Your task to perform on an android device: Clear the shopping cart on amazon. Image 0: 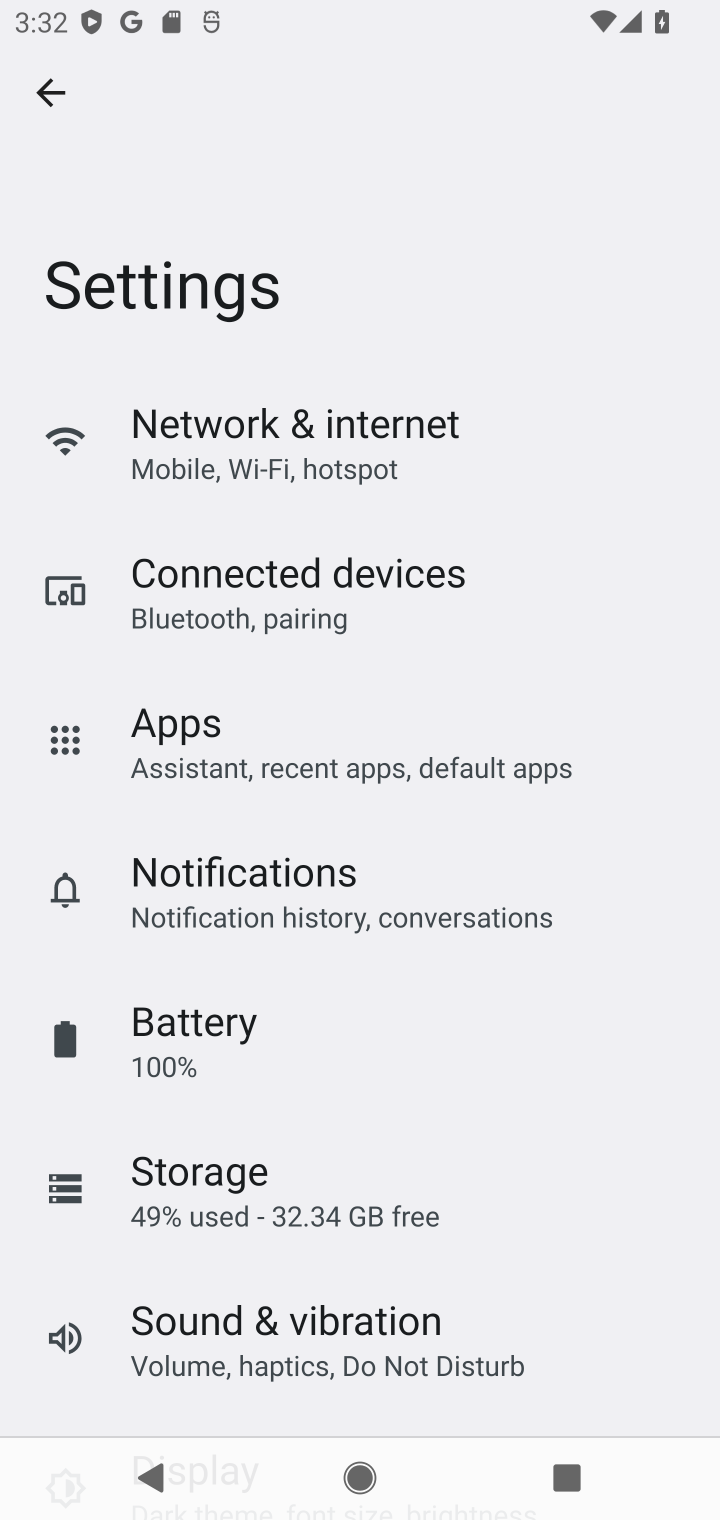
Step 0: press home button
Your task to perform on an android device: Clear the shopping cart on amazon. Image 1: 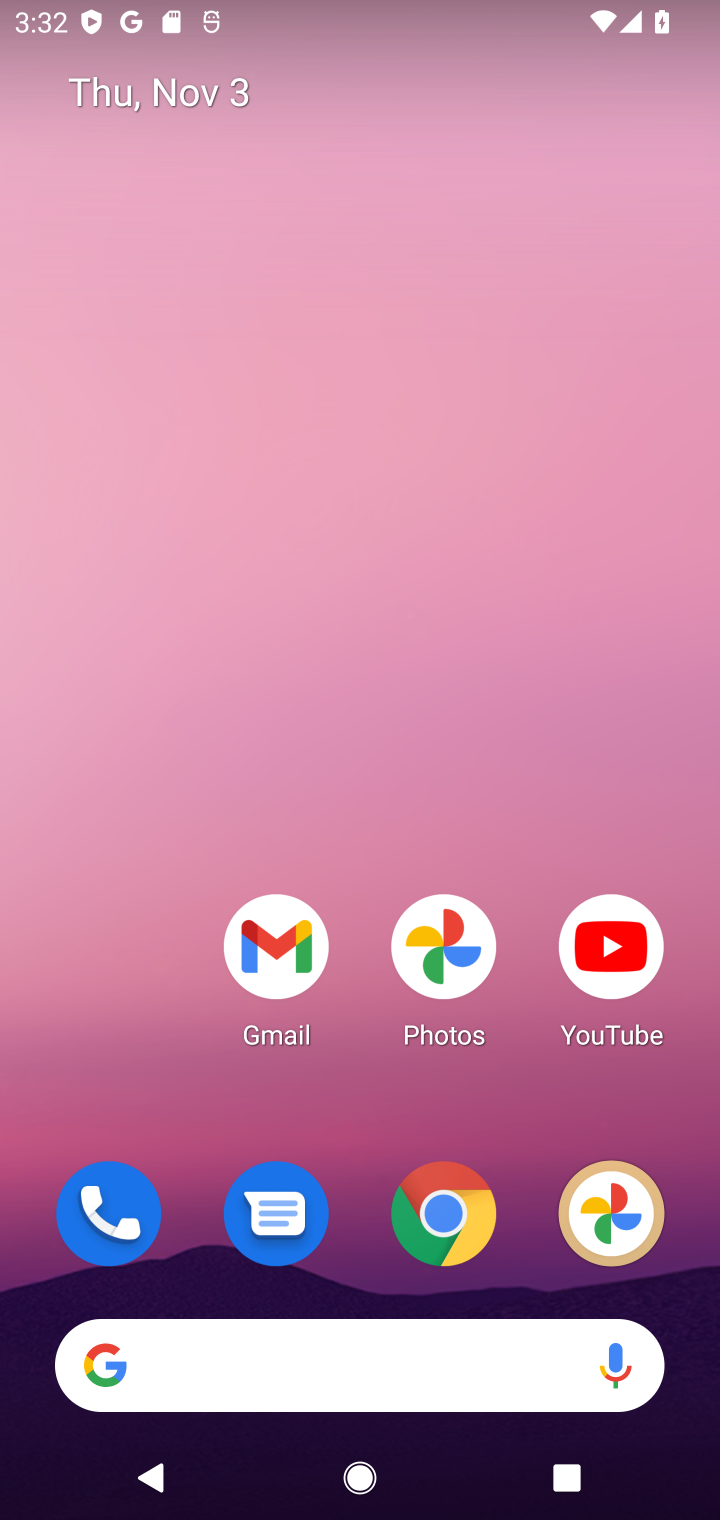
Step 1: click (437, 1231)
Your task to perform on an android device: Clear the shopping cart on amazon. Image 2: 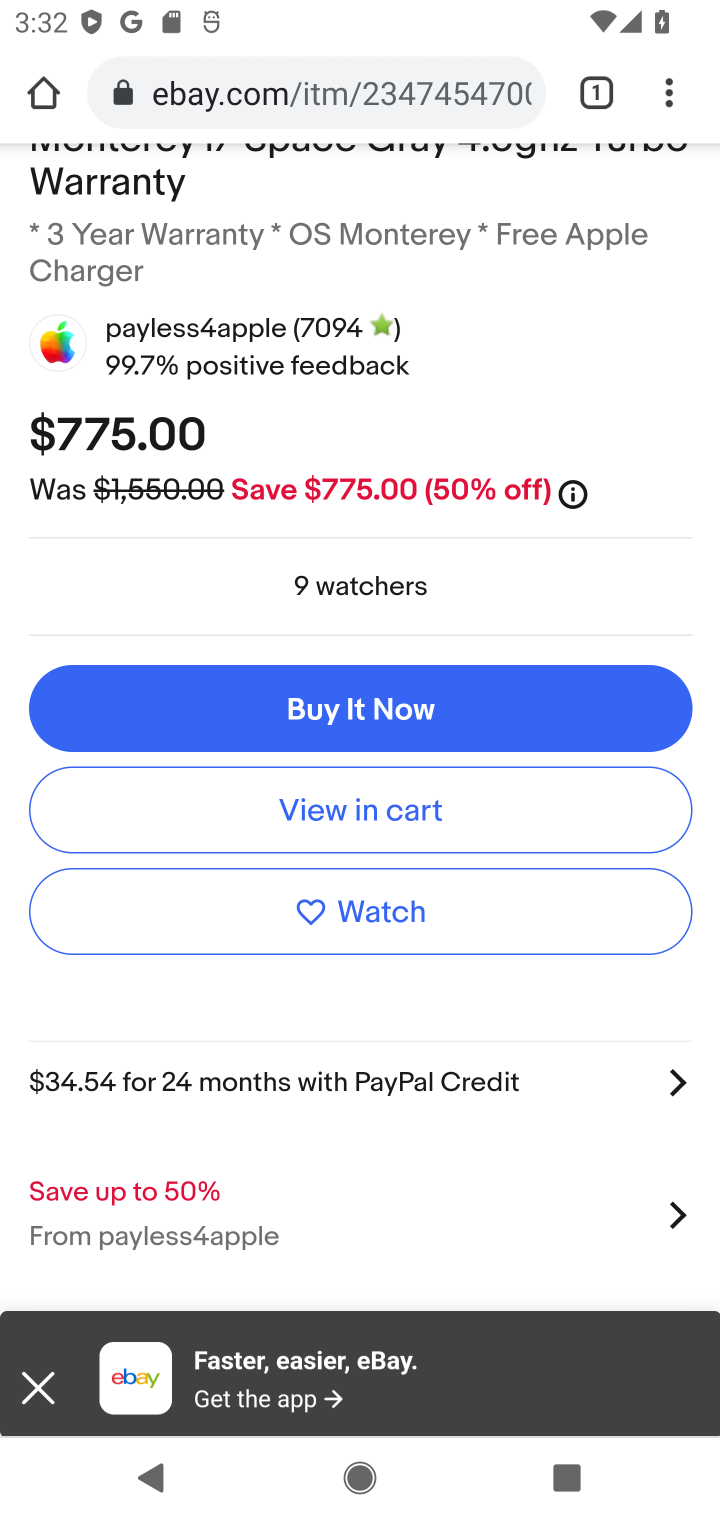
Step 2: click (297, 109)
Your task to perform on an android device: Clear the shopping cart on amazon. Image 3: 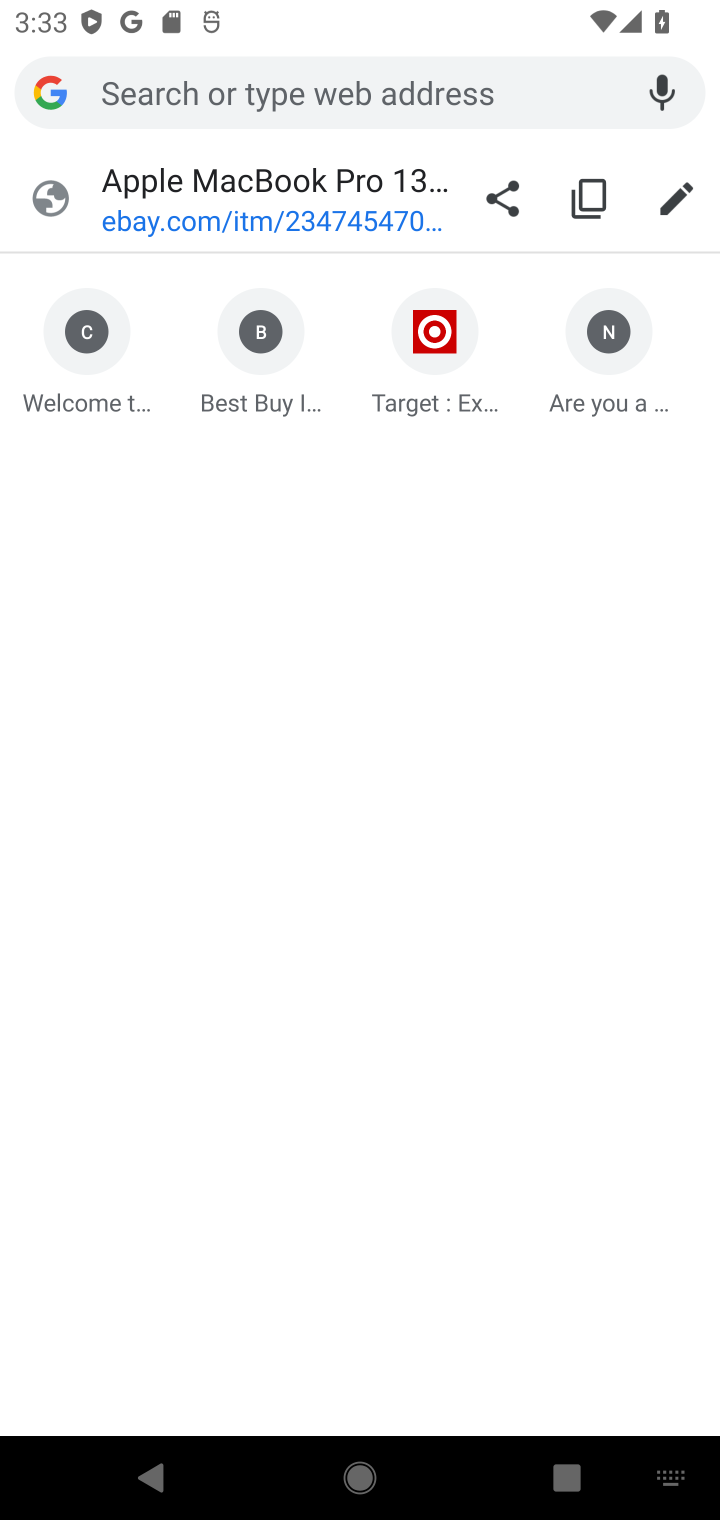
Step 3: type "amazon.com"
Your task to perform on an android device: Clear the shopping cart on amazon. Image 4: 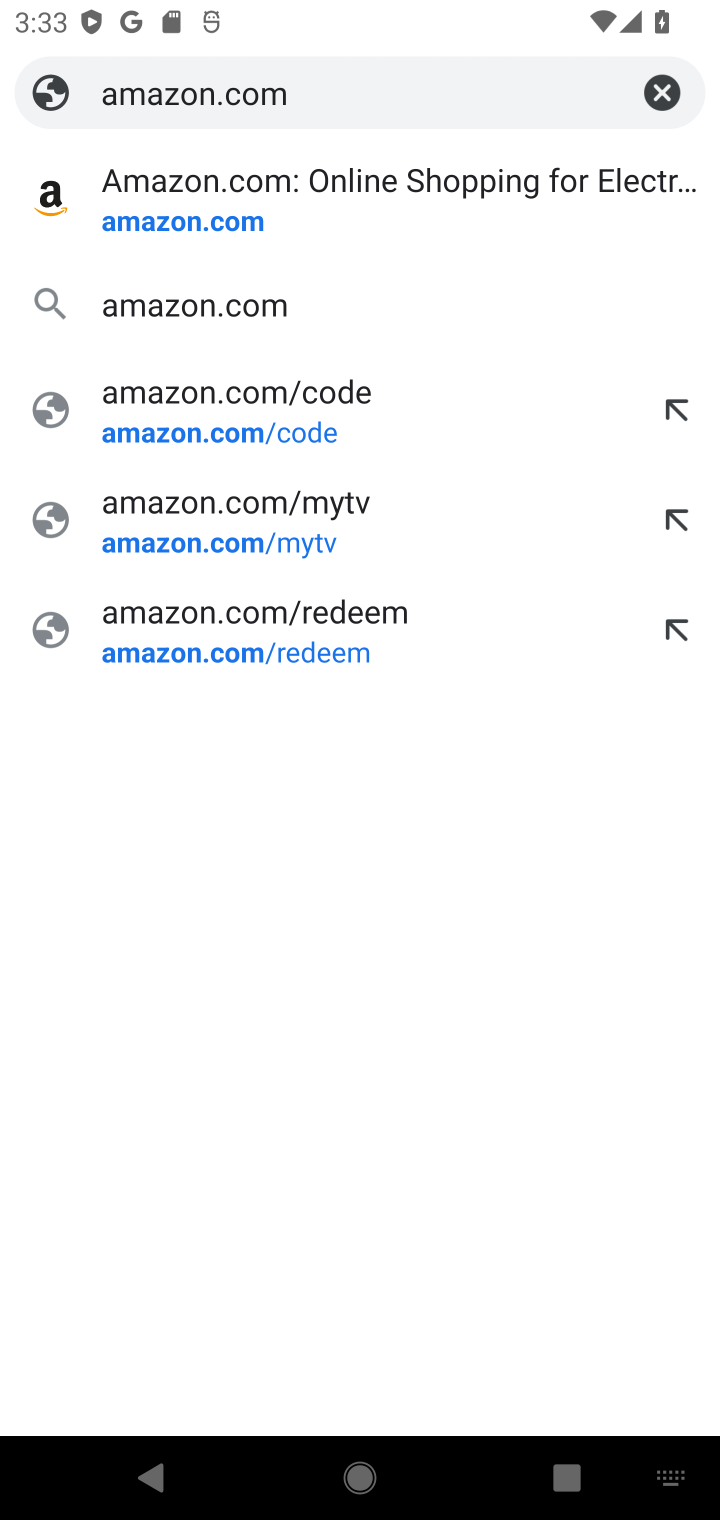
Step 4: click (203, 228)
Your task to perform on an android device: Clear the shopping cart on amazon. Image 5: 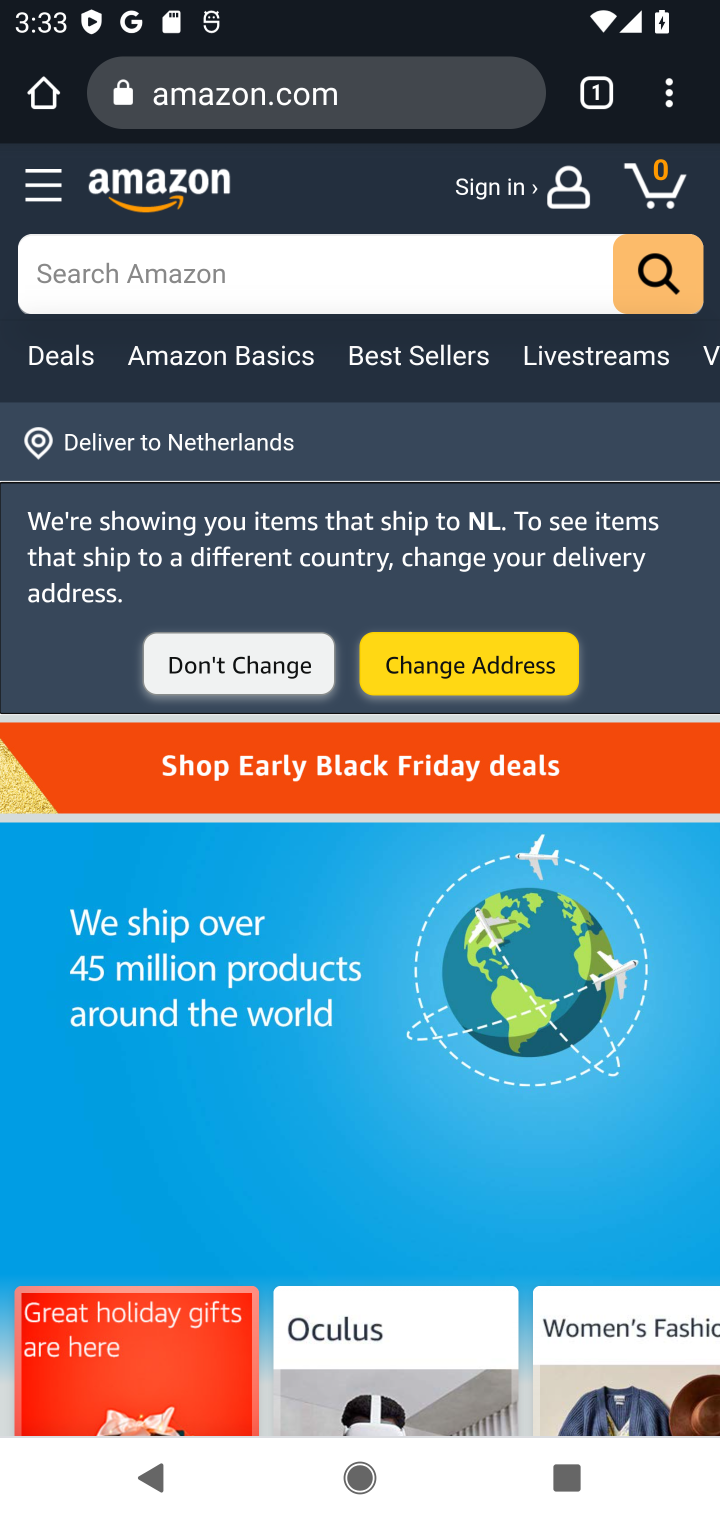
Step 5: click (658, 189)
Your task to perform on an android device: Clear the shopping cart on amazon. Image 6: 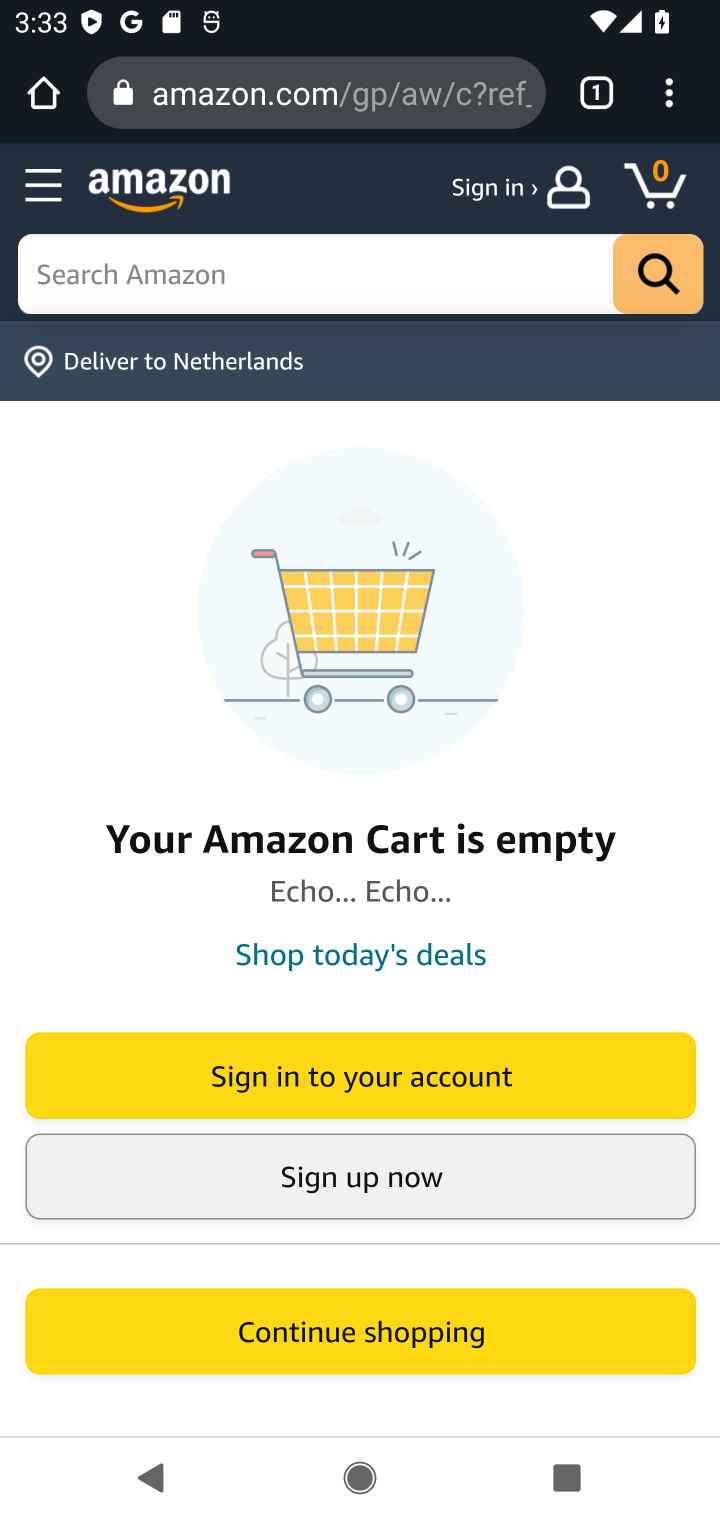
Step 6: task complete